Your task to perform on an android device: toggle wifi Image 0: 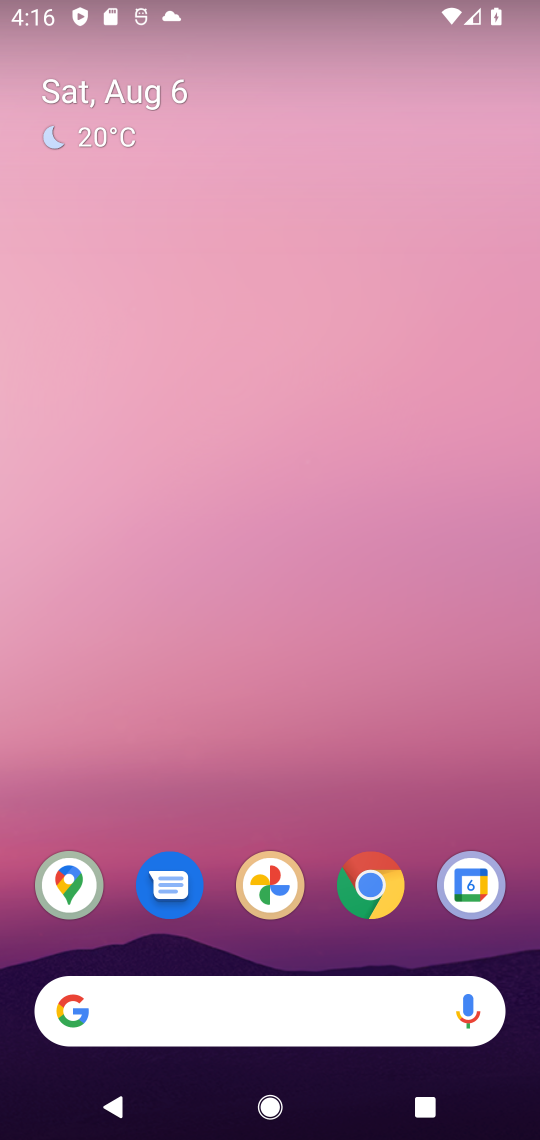
Step 0: drag from (261, 6) to (333, 1139)
Your task to perform on an android device: toggle wifi Image 1: 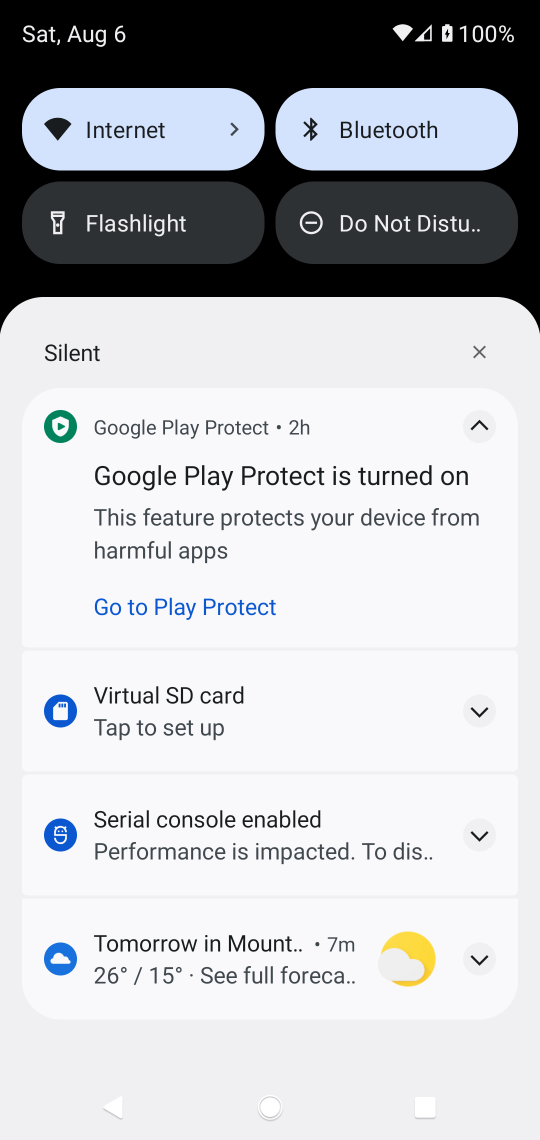
Step 1: drag from (270, 241) to (323, 1030)
Your task to perform on an android device: toggle wifi Image 2: 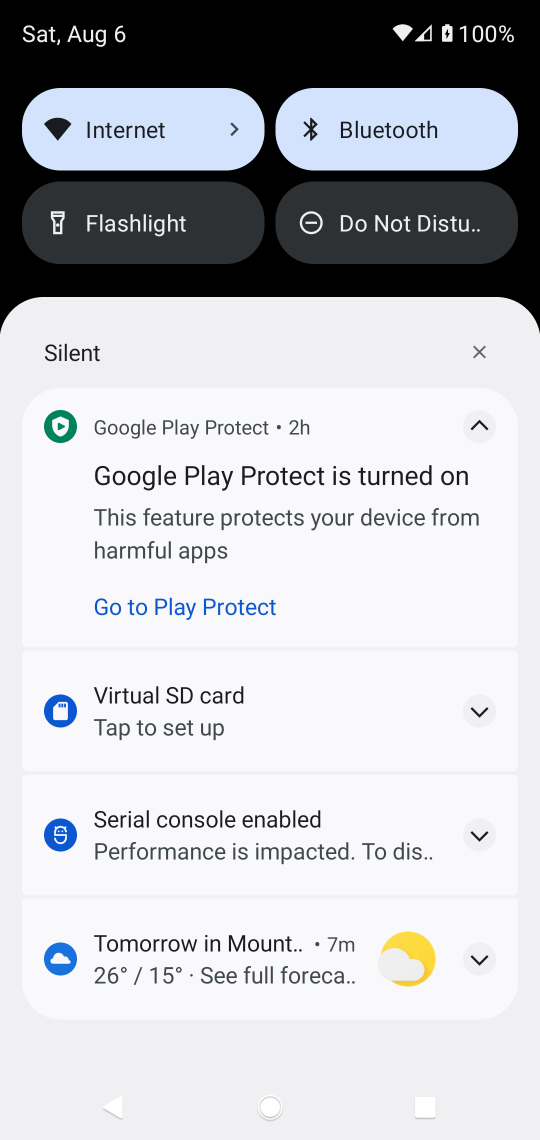
Step 2: click (168, 152)
Your task to perform on an android device: toggle wifi Image 3: 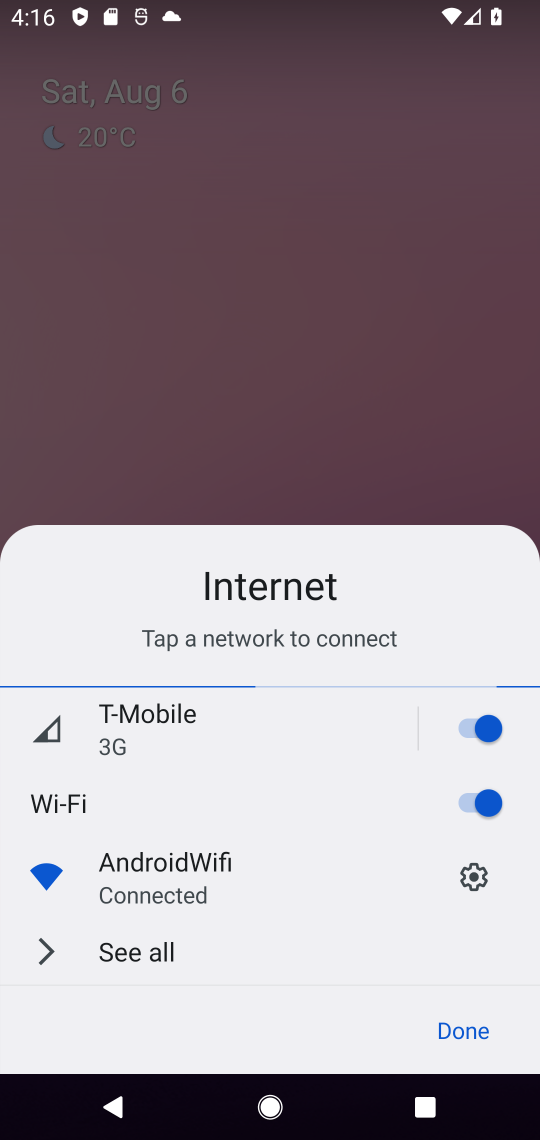
Step 3: click (460, 798)
Your task to perform on an android device: toggle wifi Image 4: 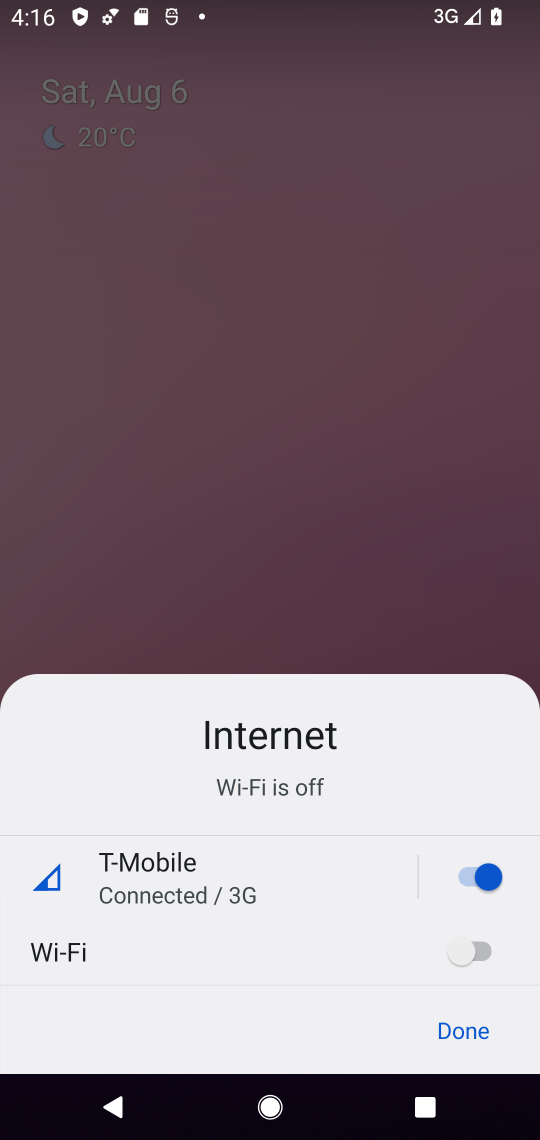
Step 4: task complete